Your task to perform on an android device: Open Youtube and go to "Your channel" Image 0: 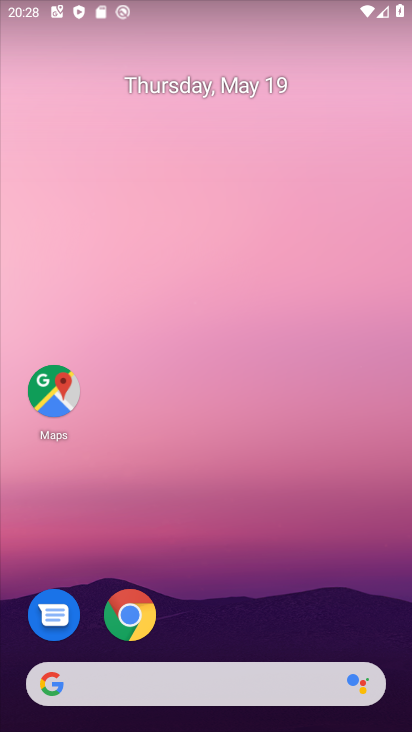
Step 0: drag from (262, 559) to (290, 76)
Your task to perform on an android device: Open Youtube and go to "Your channel" Image 1: 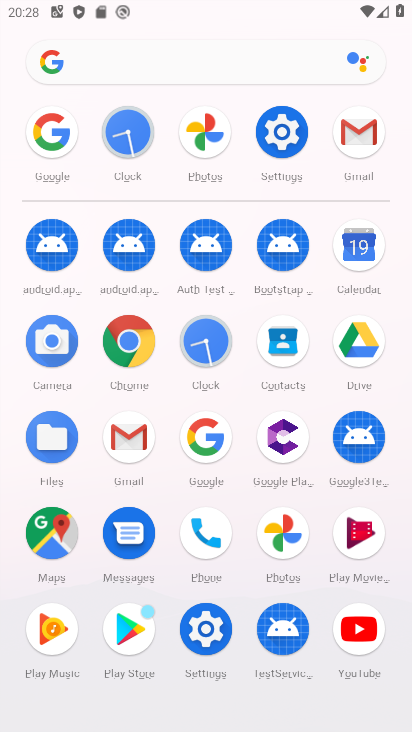
Step 1: click (367, 616)
Your task to perform on an android device: Open Youtube and go to "Your channel" Image 2: 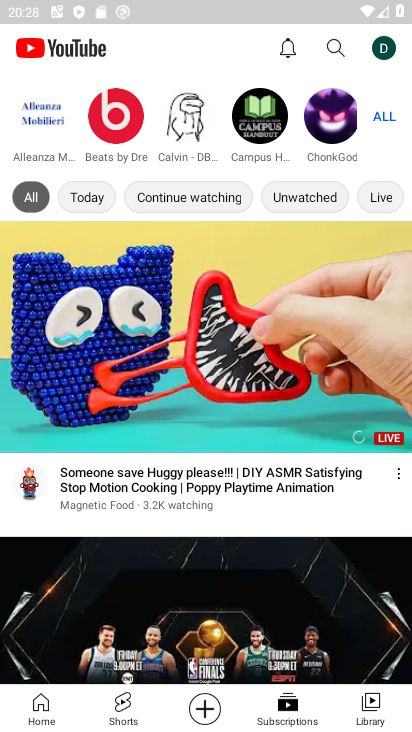
Step 2: click (381, 56)
Your task to perform on an android device: Open Youtube and go to "Your channel" Image 3: 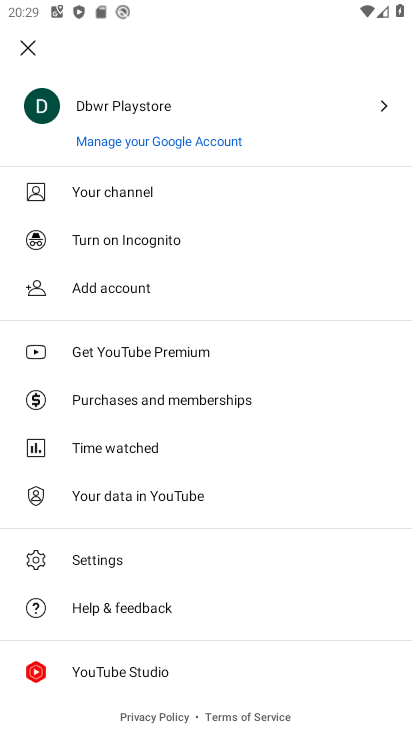
Step 3: click (130, 186)
Your task to perform on an android device: Open Youtube and go to "Your channel" Image 4: 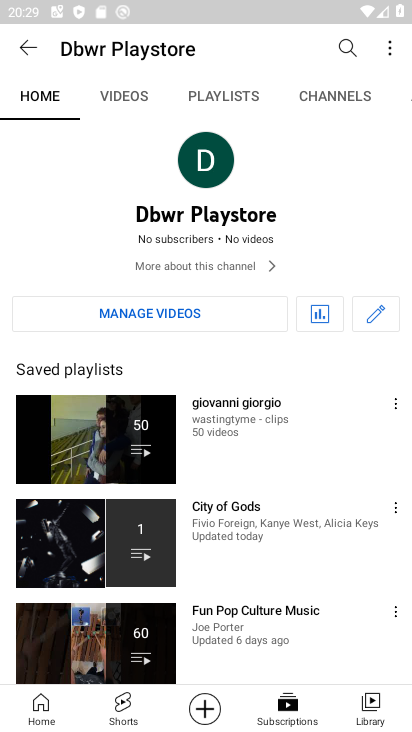
Step 4: task complete